Your task to perform on an android device: Open Reddit.com Image 0: 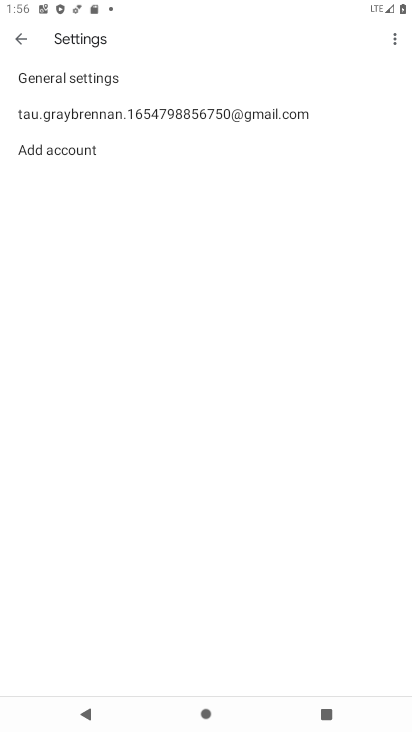
Step 0: press home button
Your task to perform on an android device: Open Reddit.com Image 1: 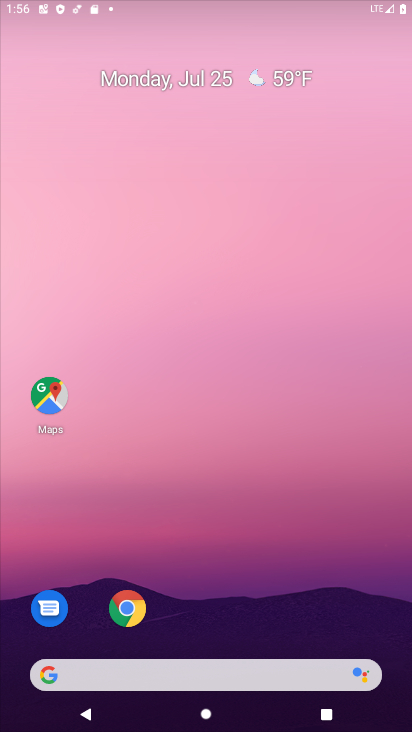
Step 1: drag from (284, 626) to (161, 70)
Your task to perform on an android device: Open Reddit.com Image 2: 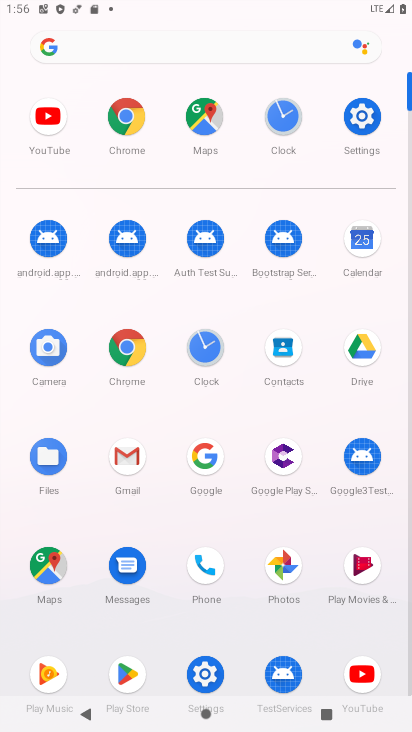
Step 2: click (125, 370)
Your task to perform on an android device: Open Reddit.com Image 3: 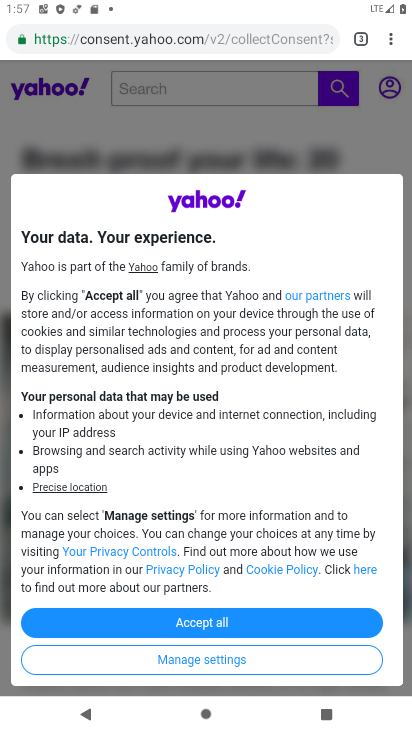
Step 3: press home button
Your task to perform on an android device: Open Reddit.com Image 4: 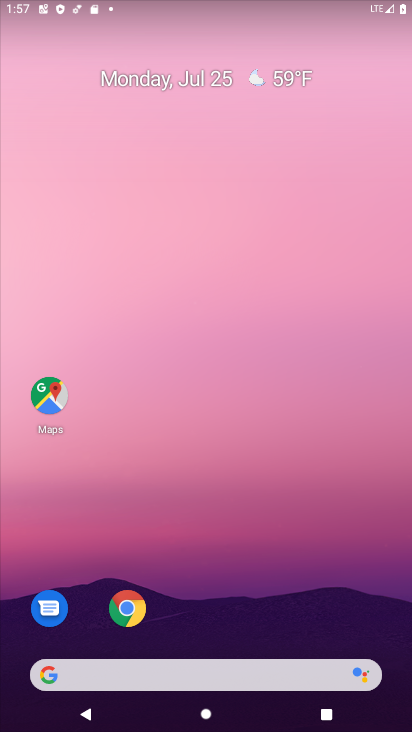
Step 4: click (145, 606)
Your task to perform on an android device: Open Reddit.com Image 5: 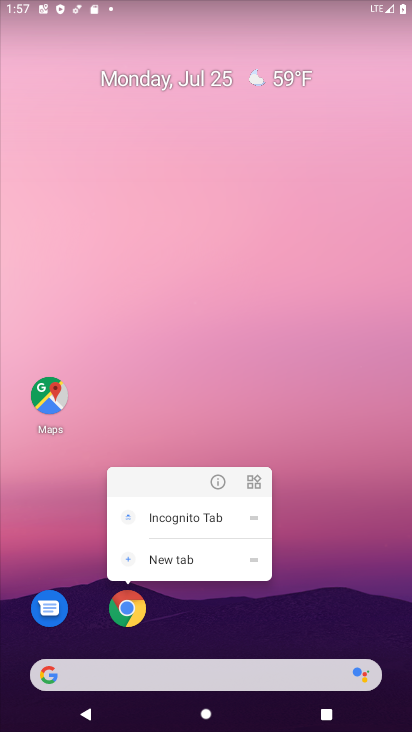
Step 5: click (141, 571)
Your task to perform on an android device: Open Reddit.com Image 6: 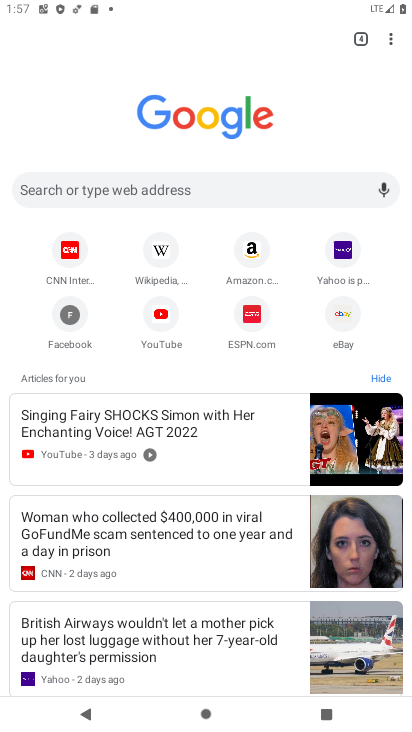
Step 6: click (148, 192)
Your task to perform on an android device: Open Reddit.com Image 7: 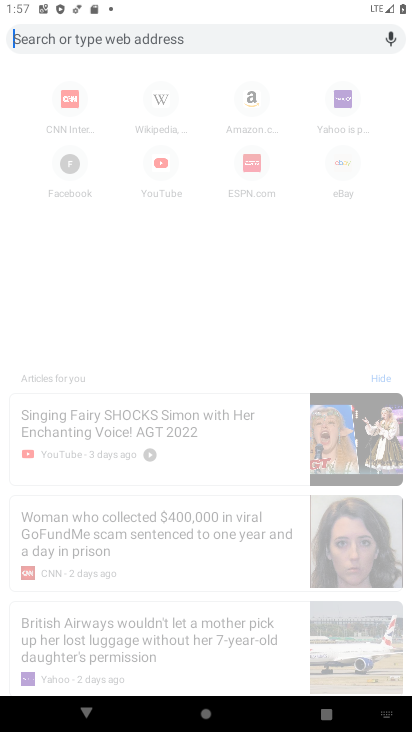
Step 7: type "Reddit.com"
Your task to perform on an android device: Open Reddit.com Image 8: 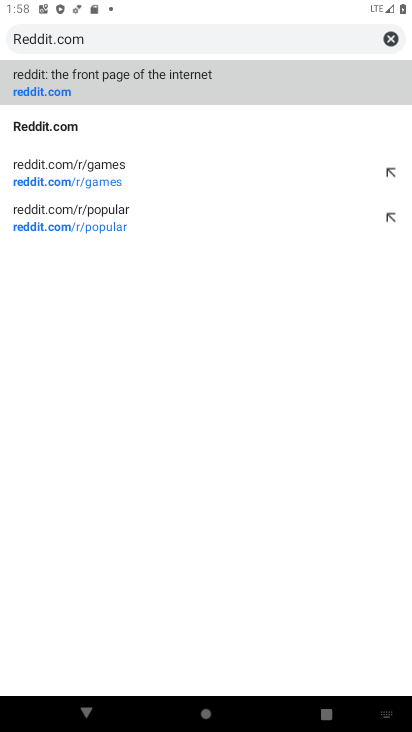
Step 8: click (112, 96)
Your task to perform on an android device: Open Reddit.com Image 9: 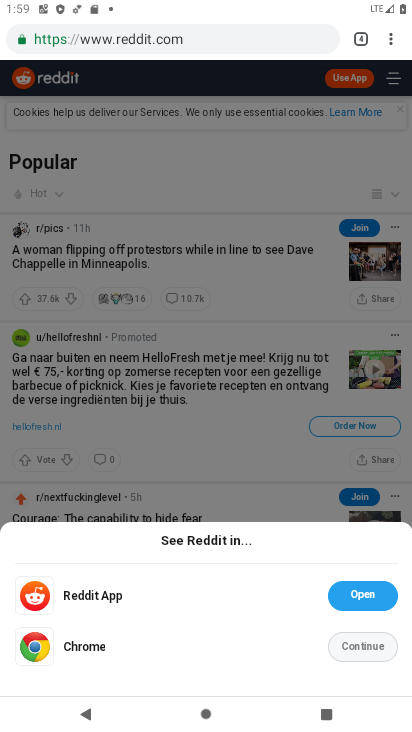
Step 9: click (365, 600)
Your task to perform on an android device: Open Reddit.com Image 10: 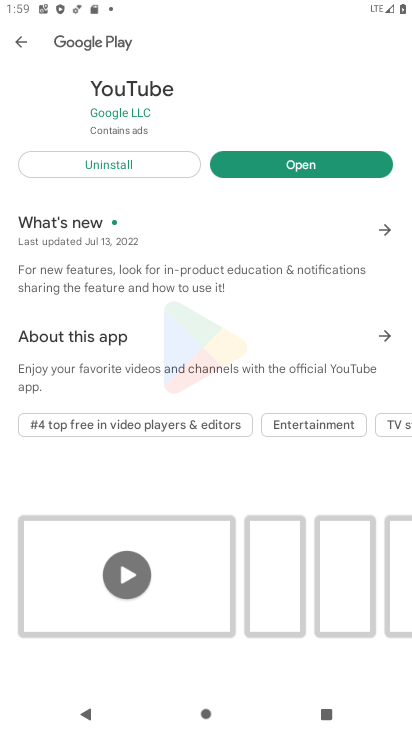
Step 10: task complete